Your task to perform on an android device: View the shopping cart on walmart.com. Search for alienware aurora on walmart.com, select the first entry, add it to the cart, then select checkout. Image 0: 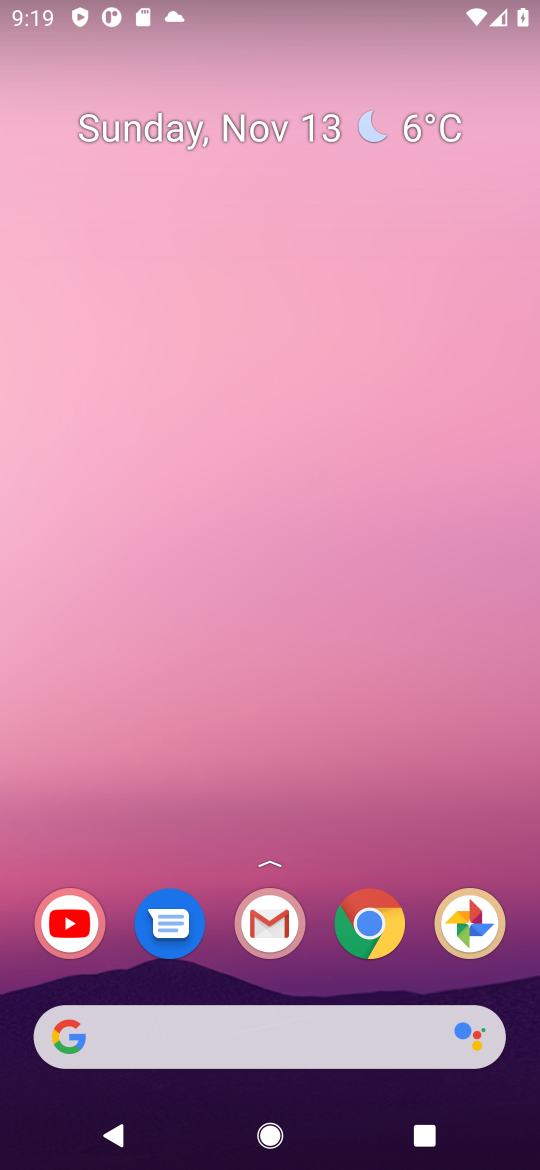
Step 0: click (378, 911)
Your task to perform on an android device: View the shopping cart on walmart.com. Search for alienware aurora on walmart.com, select the first entry, add it to the cart, then select checkout. Image 1: 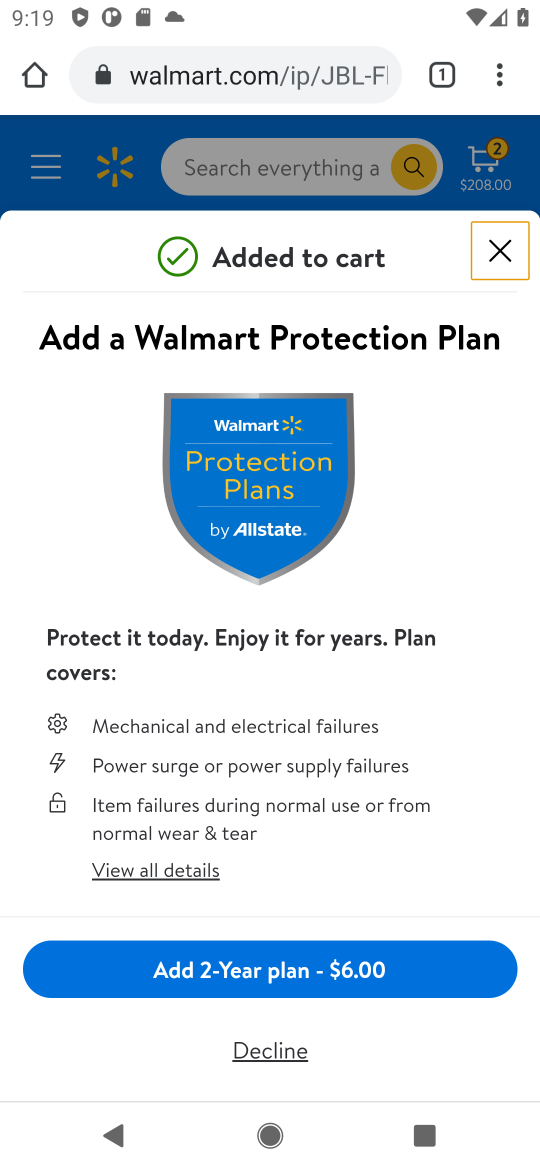
Step 1: click (496, 255)
Your task to perform on an android device: View the shopping cart on walmart.com. Search for alienware aurora on walmart.com, select the first entry, add it to the cart, then select checkout. Image 2: 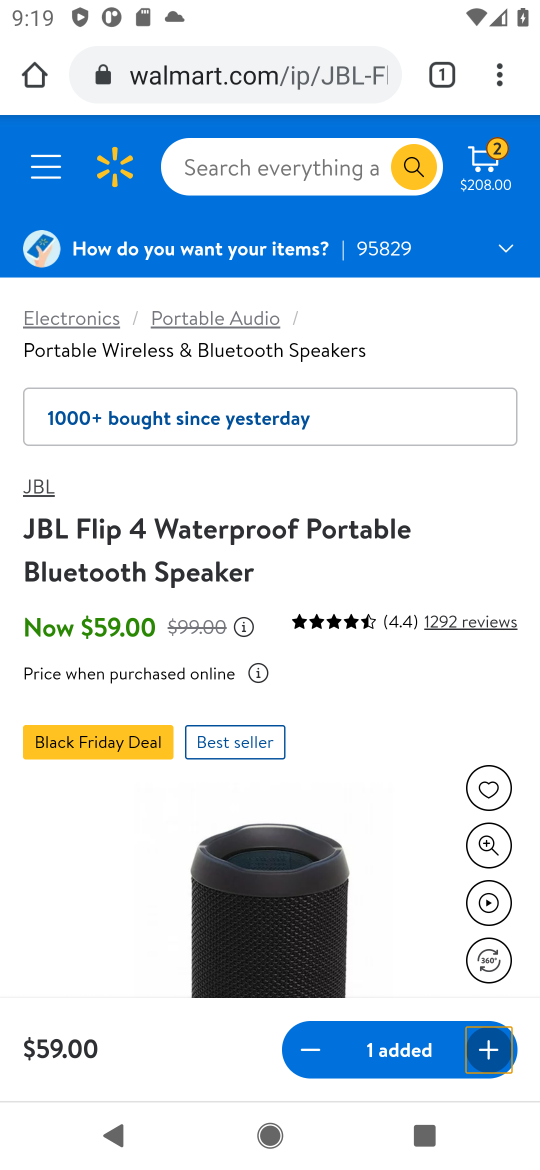
Step 2: click (484, 164)
Your task to perform on an android device: View the shopping cart on walmart.com. Search for alienware aurora on walmart.com, select the first entry, add it to the cart, then select checkout. Image 3: 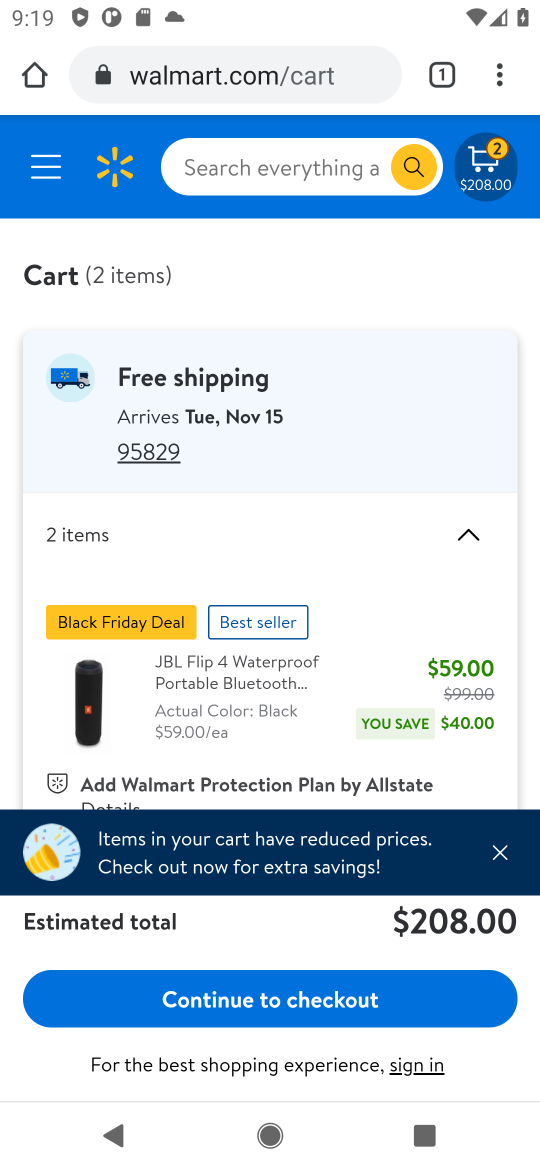
Step 3: click (267, 151)
Your task to perform on an android device: View the shopping cart on walmart.com. Search for alienware aurora on walmart.com, select the first entry, add it to the cart, then select checkout. Image 4: 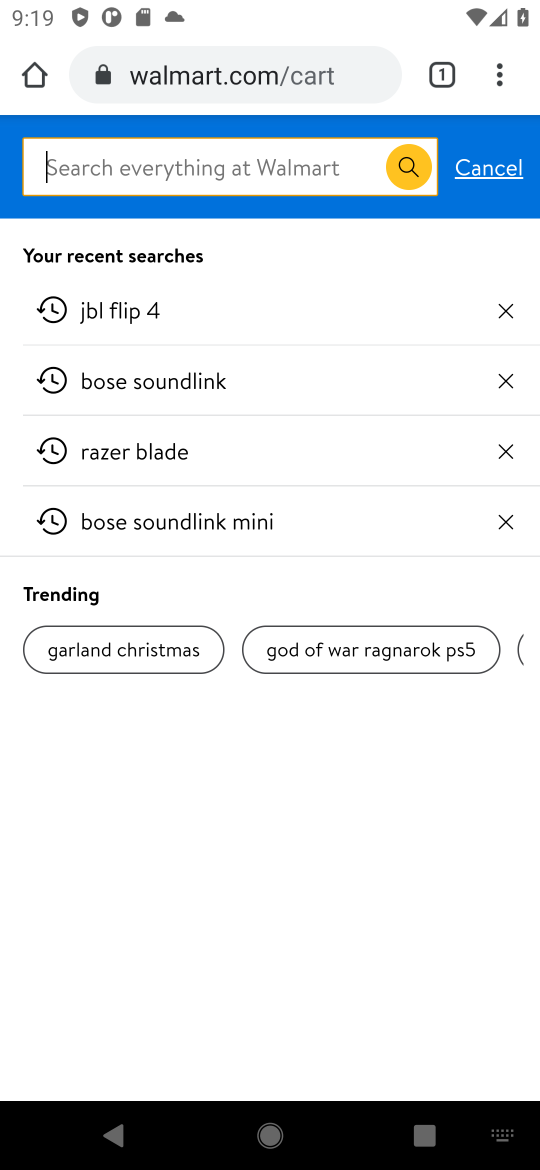
Step 4: type "alienware aurora"
Your task to perform on an android device: View the shopping cart on walmart.com. Search for alienware aurora on walmart.com, select the first entry, add it to the cart, then select checkout. Image 5: 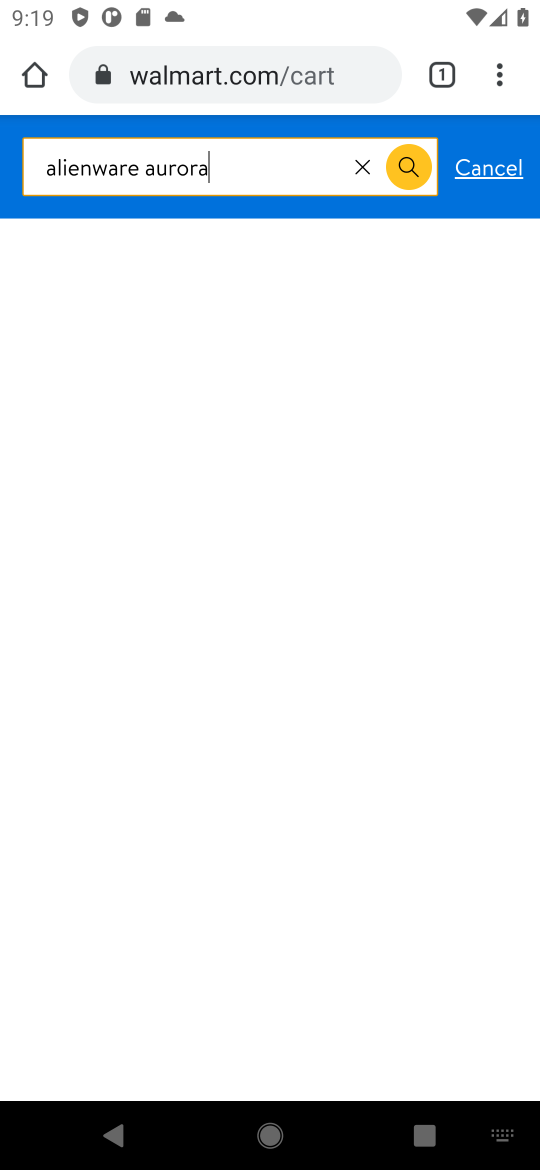
Step 5: press enter
Your task to perform on an android device: View the shopping cart on walmart.com. Search for alienware aurora on walmart.com, select the first entry, add it to the cart, then select checkout. Image 6: 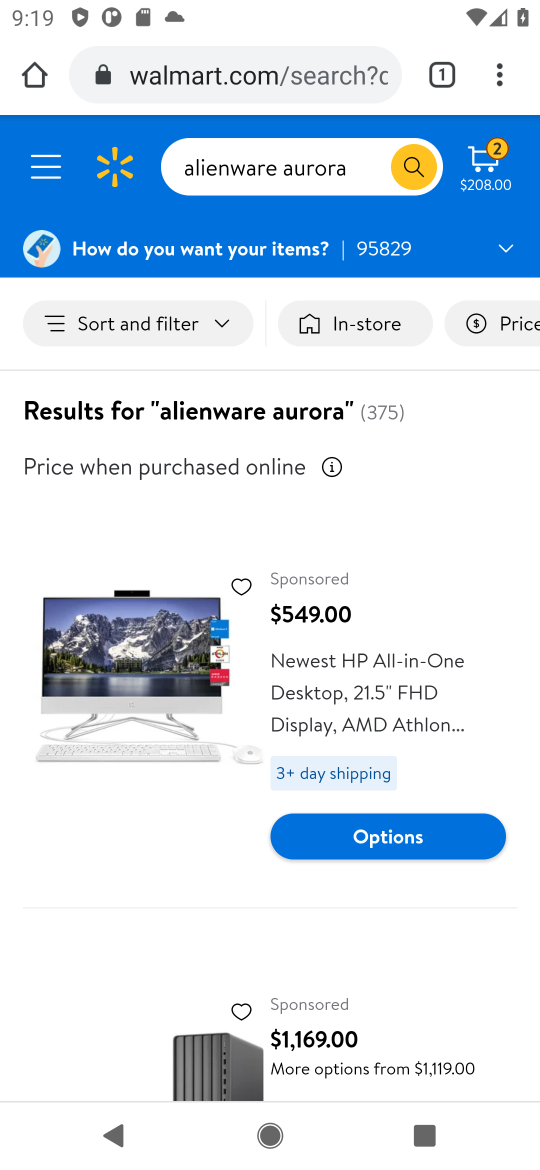
Step 6: drag from (470, 902) to (445, 367)
Your task to perform on an android device: View the shopping cart on walmart.com. Search for alienware aurora on walmart.com, select the first entry, add it to the cart, then select checkout. Image 7: 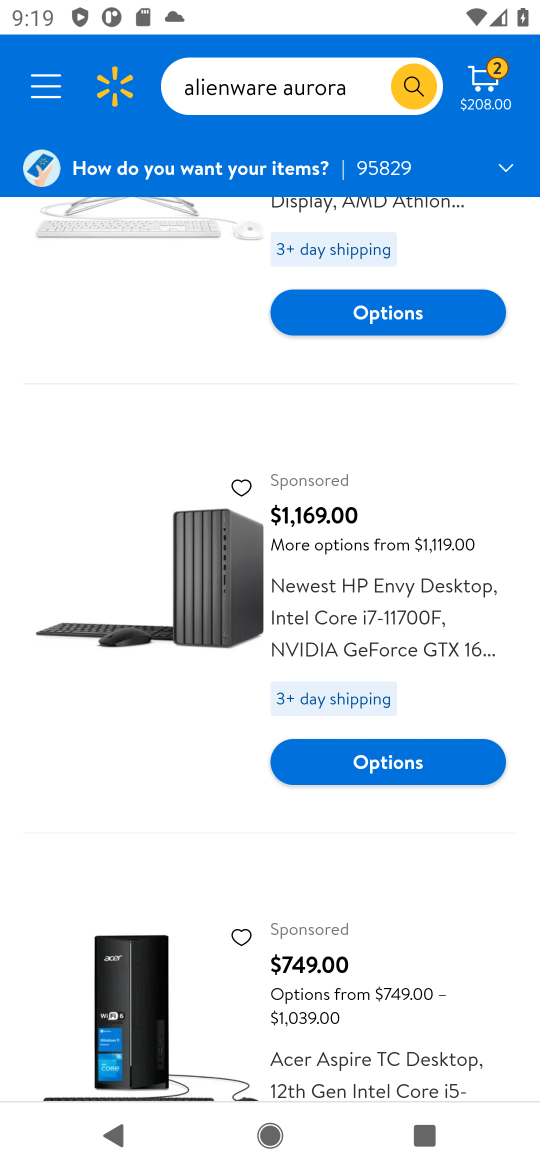
Step 7: drag from (454, 928) to (410, 593)
Your task to perform on an android device: View the shopping cart on walmart.com. Search for alienware aurora on walmart.com, select the first entry, add it to the cart, then select checkout. Image 8: 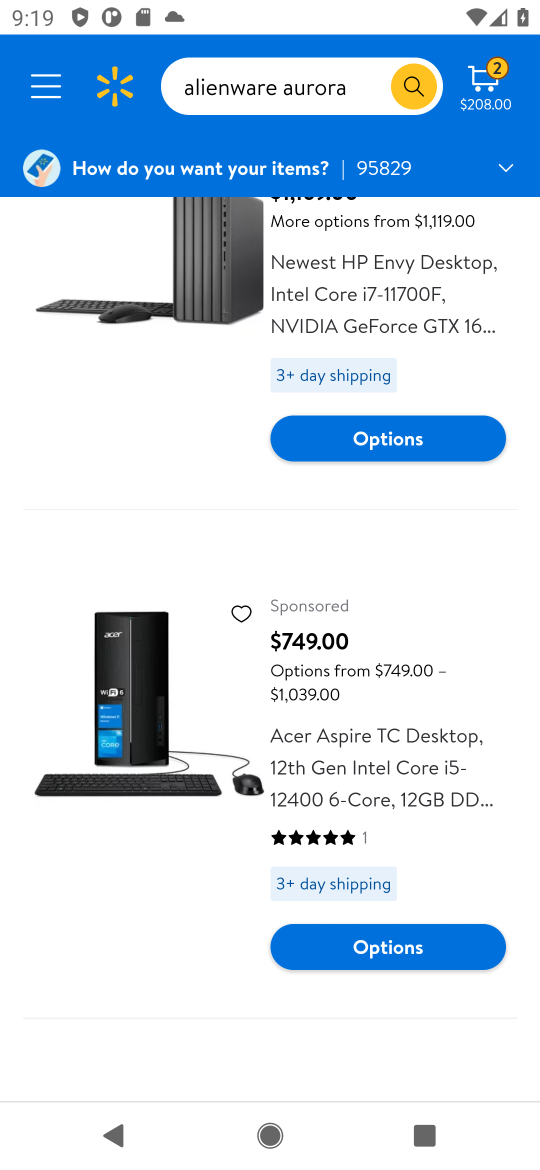
Step 8: drag from (451, 789) to (403, 278)
Your task to perform on an android device: View the shopping cart on walmart.com. Search for alienware aurora on walmart.com, select the first entry, add it to the cart, then select checkout. Image 9: 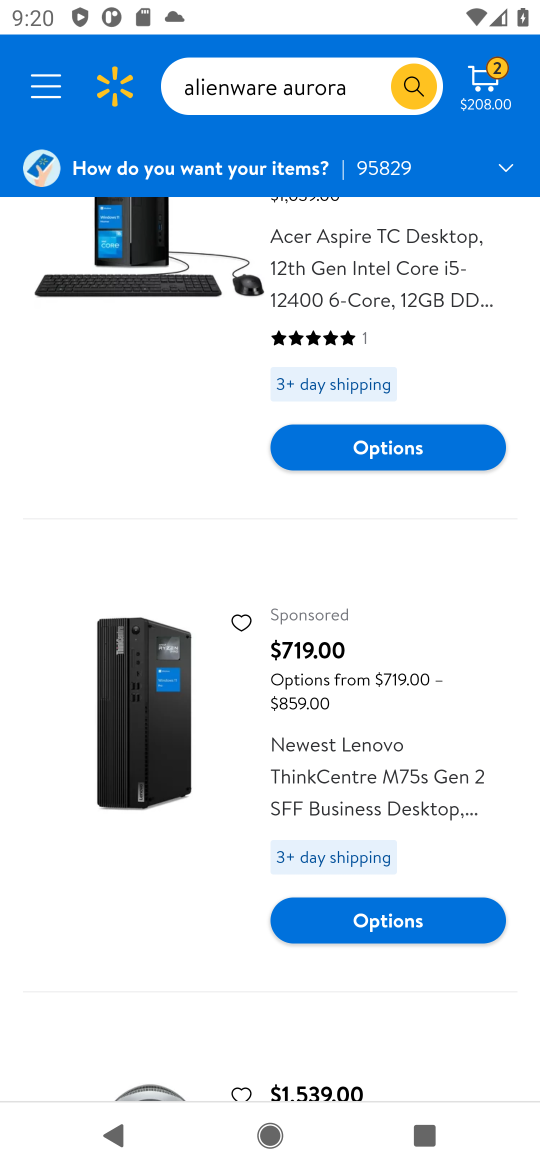
Step 9: drag from (445, 768) to (403, 424)
Your task to perform on an android device: View the shopping cart on walmart.com. Search for alienware aurora on walmart.com, select the first entry, add it to the cart, then select checkout. Image 10: 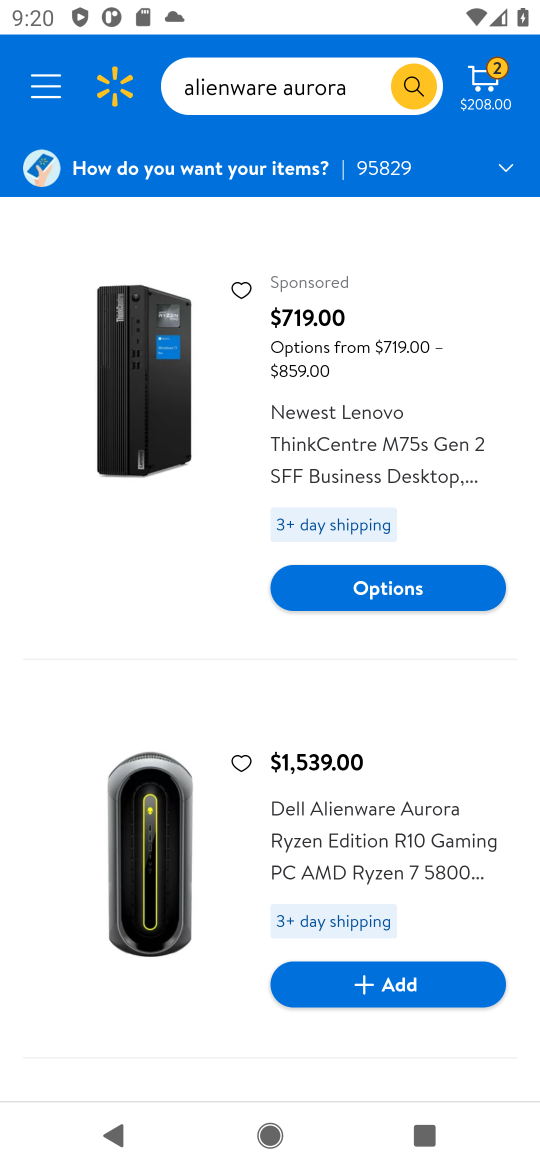
Step 10: click (132, 858)
Your task to perform on an android device: View the shopping cart on walmart.com. Search for alienware aurora on walmart.com, select the first entry, add it to the cart, then select checkout. Image 11: 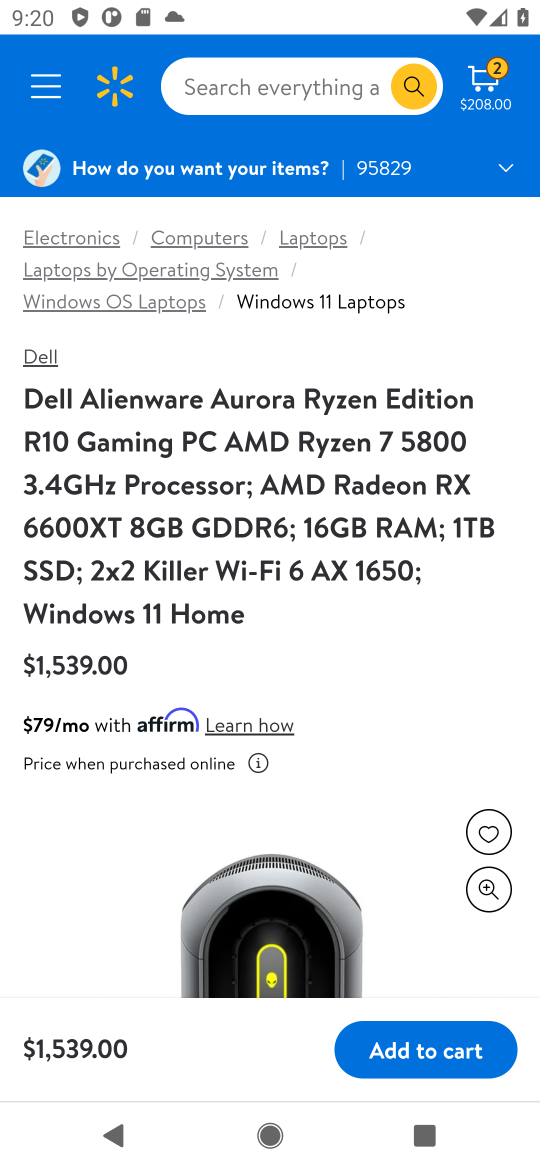
Step 11: click (442, 1049)
Your task to perform on an android device: View the shopping cart on walmart.com. Search for alienware aurora on walmart.com, select the first entry, add it to the cart, then select checkout. Image 12: 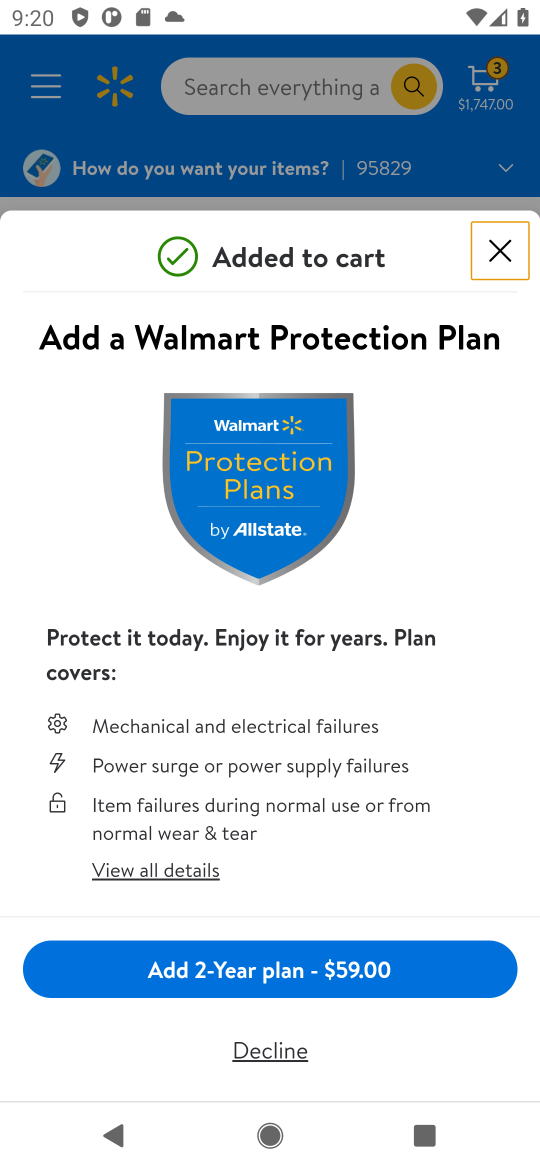
Step 12: click (509, 256)
Your task to perform on an android device: View the shopping cart on walmart.com. Search for alienware aurora on walmart.com, select the first entry, add it to the cart, then select checkout. Image 13: 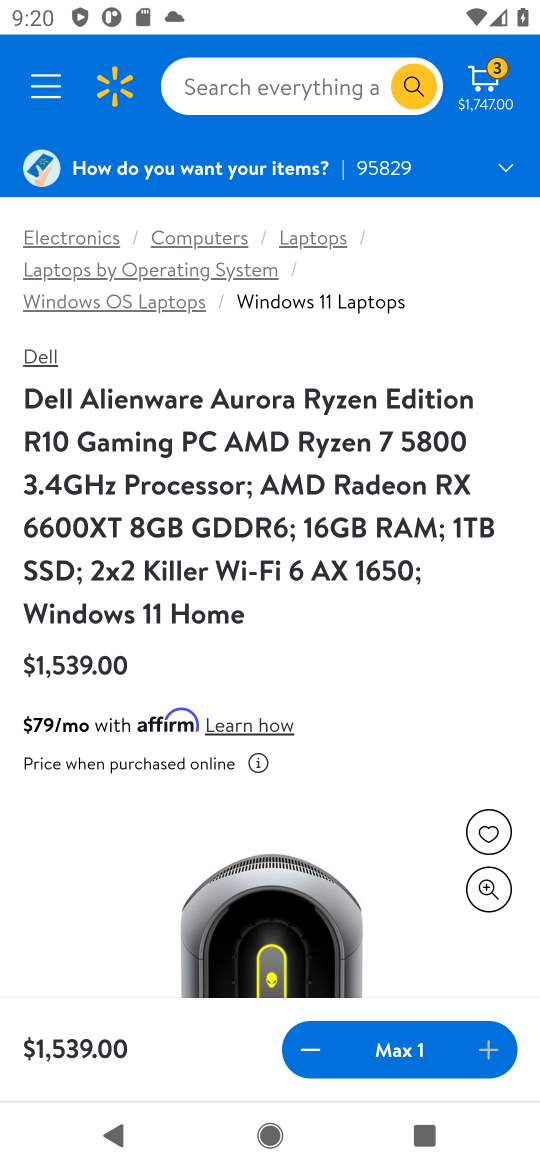
Step 13: click (489, 87)
Your task to perform on an android device: View the shopping cart on walmart.com. Search for alienware aurora on walmart.com, select the first entry, add it to the cart, then select checkout. Image 14: 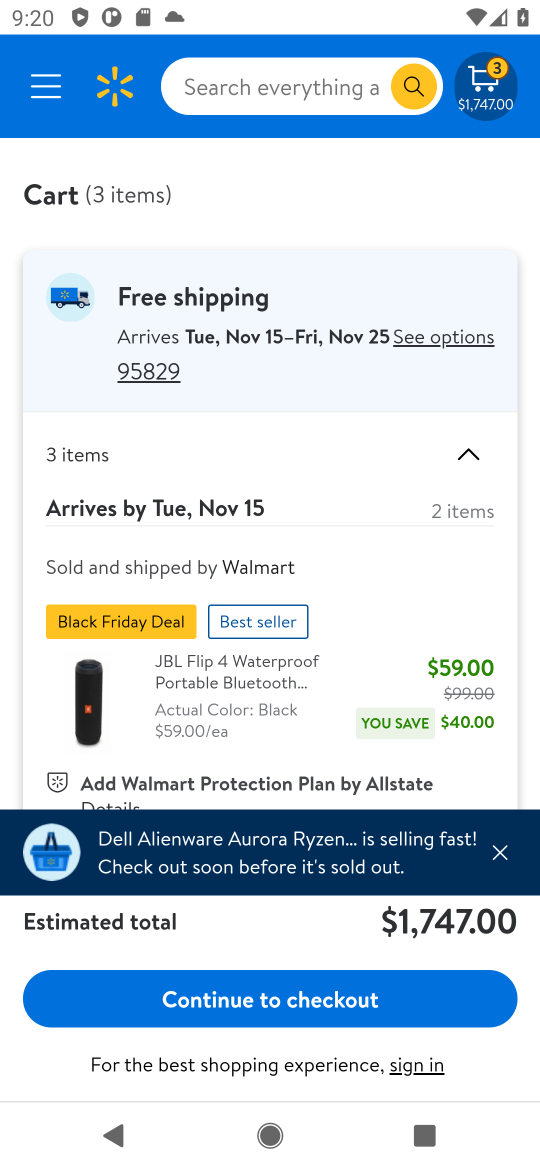
Step 14: click (291, 990)
Your task to perform on an android device: View the shopping cart on walmart.com. Search for alienware aurora on walmart.com, select the first entry, add it to the cart, then select checkout. Image 15: 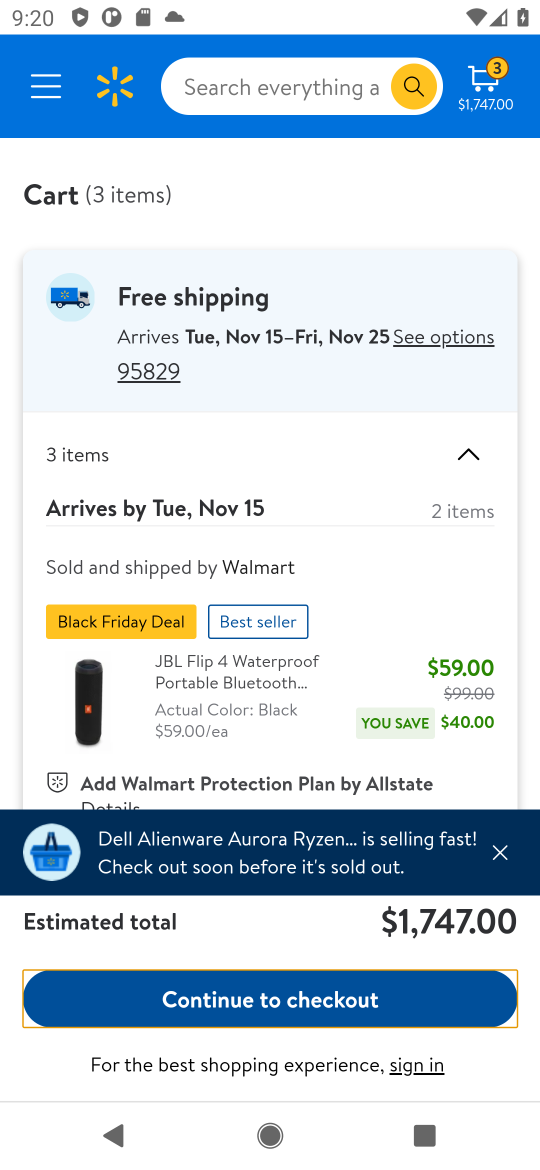
Step 15: task complete